Your task to perform on an android device: clear all cookies in the chrome app Image 0: 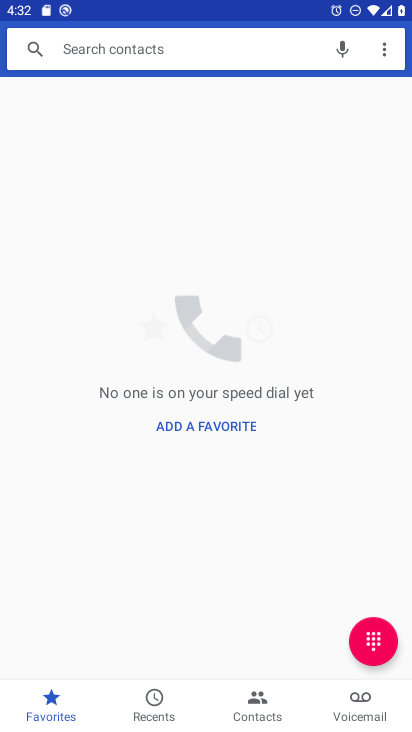
Step 0: press home button
Your task to perform on an android device: clear all cookies in the chrome app Image 1: 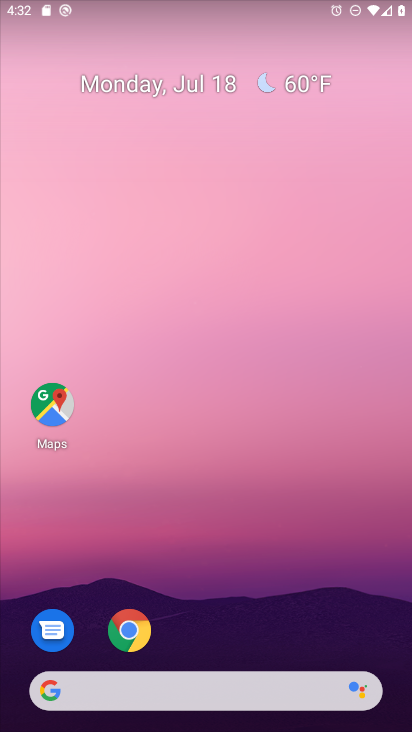
Step 1: click (123, 633)
Your task to perform on an android device: clear all cookies in the chrome app Image 2: 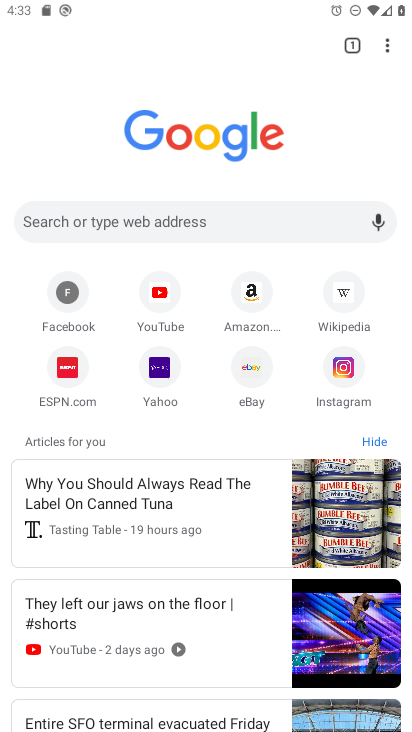
Step 2: click (389, 41)
Your task to perform on an android device: clear all cookies in the chrome app Image 3: 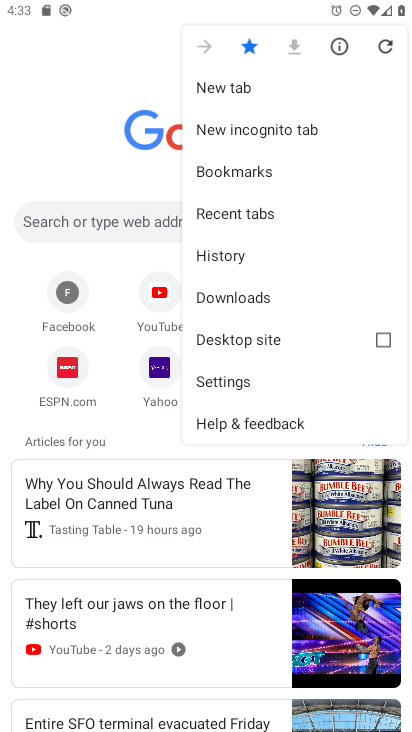
Step 3: click (228, 373)
Your task to perform on an android device: clear all cookies in the chrome app Image 4: 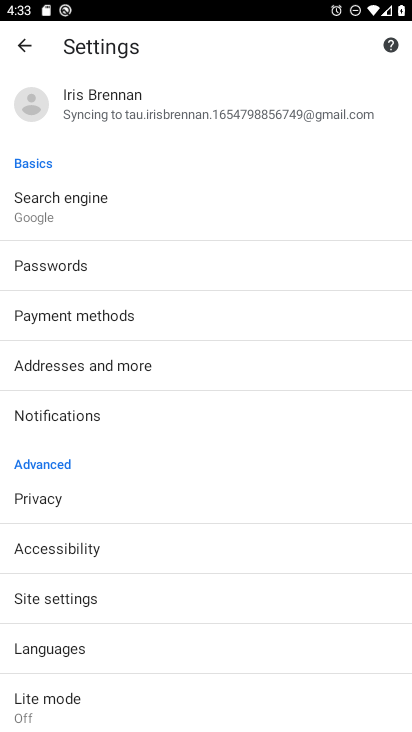
Step 4: click (38, 504)
Your task to perform on an android device: clear all cookies in the chrome app Image 5: 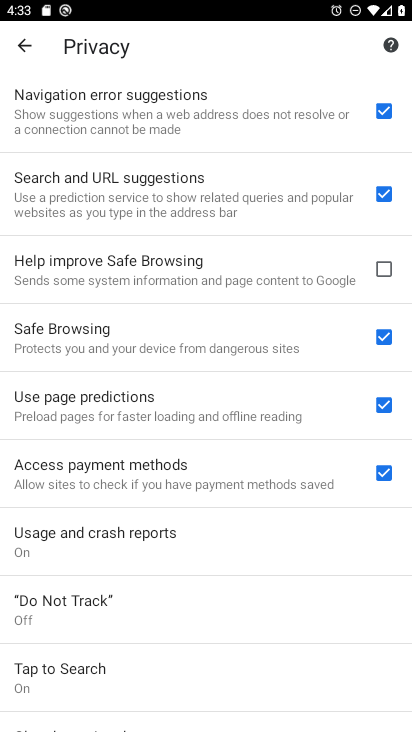
Step 5: drag from (218, 571) to (222, 235)
Your task to perform on an android device: clear all cookies in the chrome app Image 6: 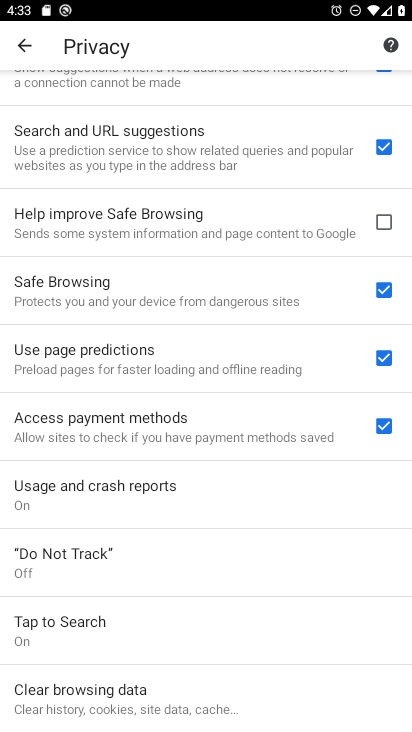
Step 6: click (89, 686)
Your task to perform on an android device: clear all cookies in the chrome app Image 7: 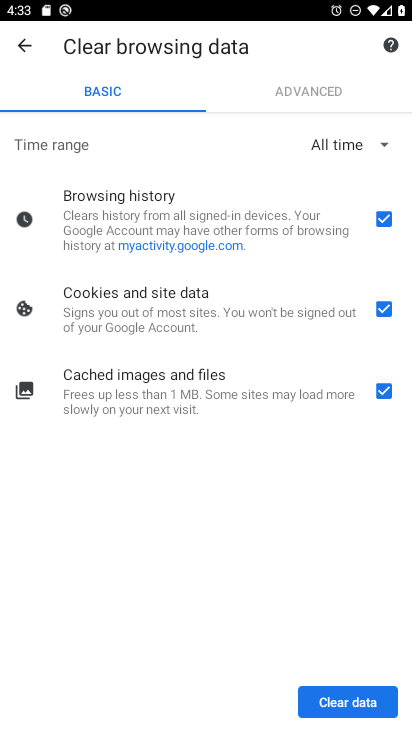
Step 7: click (384, 218)
Your task to perform on an android device: clear all cookies in the chrome app Image 8: 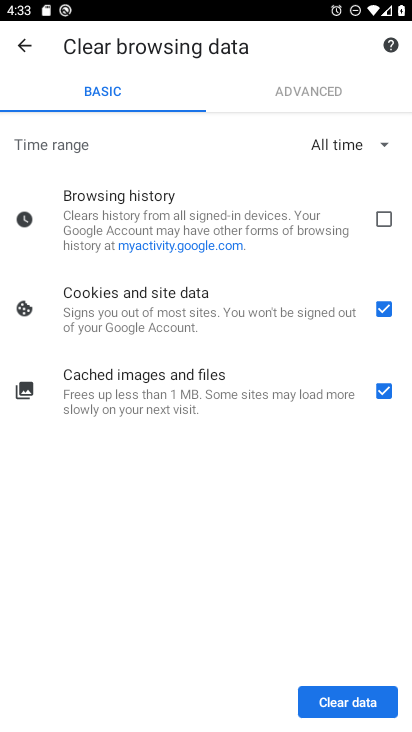
Step 8: click (389, 385)
Your task to perform on an android device: clear all cookies in the chrome app Image 9: 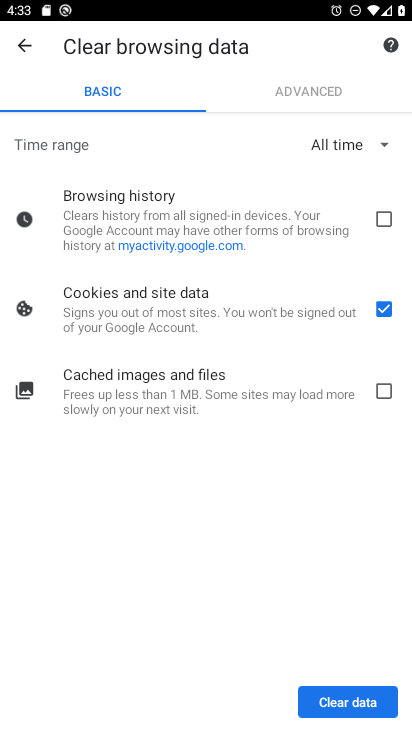
Step 9: click (346, 696)
Your task to perform on an android device: clear all cookies in the chrome app Image 10: 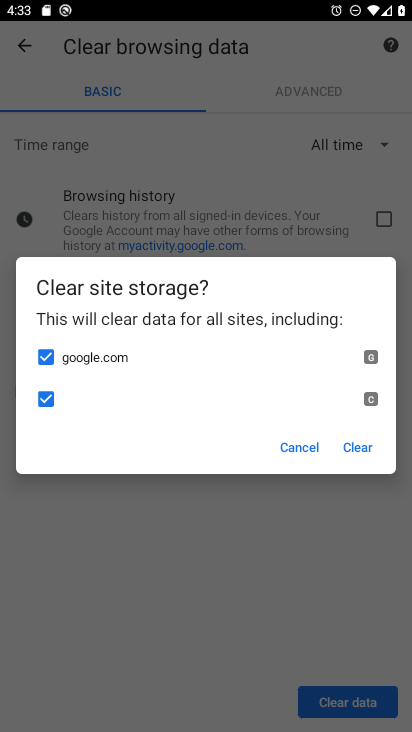
Step 10: click (355, 447)
Your task to perform on an android device: clear all cookies in the chrome app Image 11: 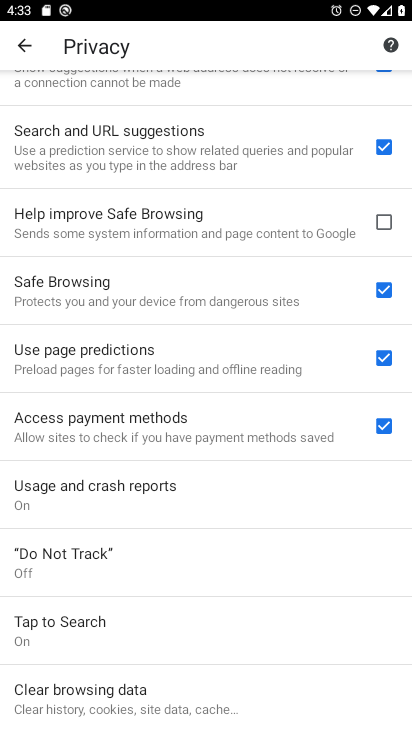
Step 11: task complete